Your task to perform on an android device: Search for pizza restaurants on Maps Image 0: 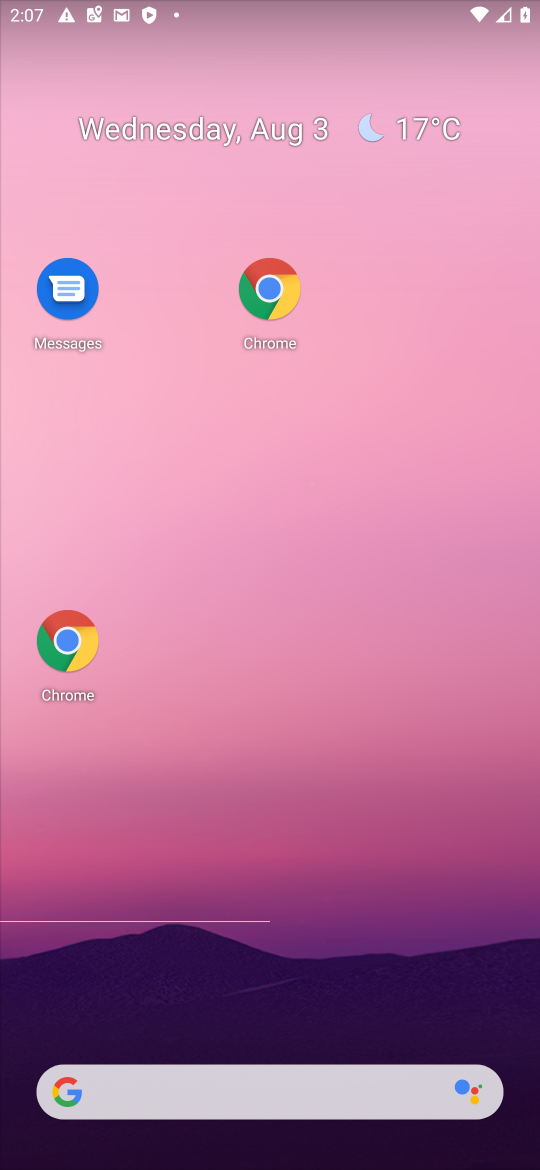
Step 0: drag from (344, 923) to (370, 177)
Your task to perform on an android device: Search for pizza restaurants on Maps Image 1: 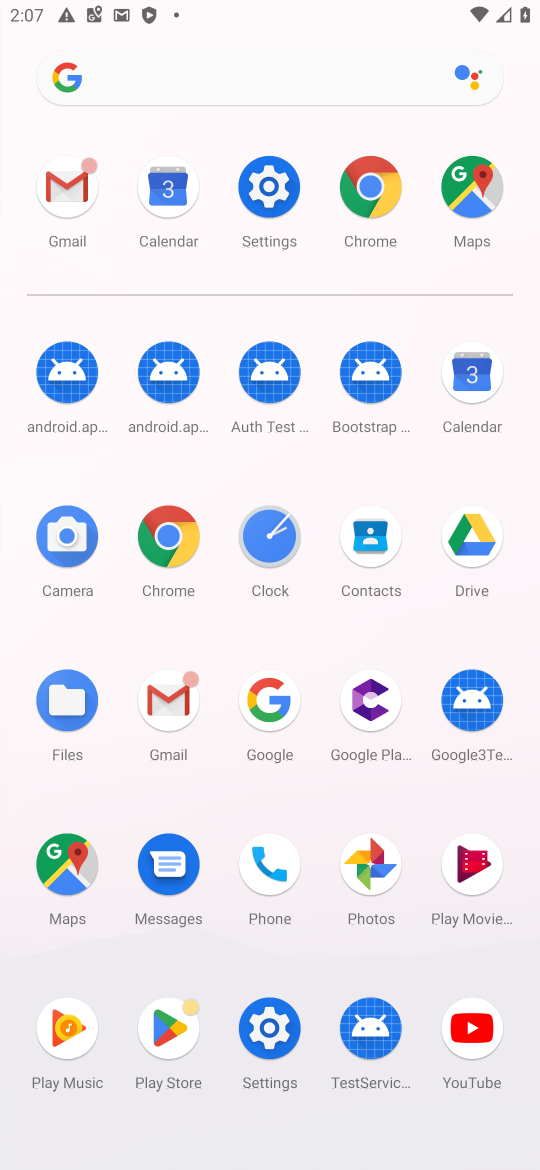
Step 1: click (86, 886)
Your task to perform on an android device: Search for pizza restaurants on Maps Image 2: 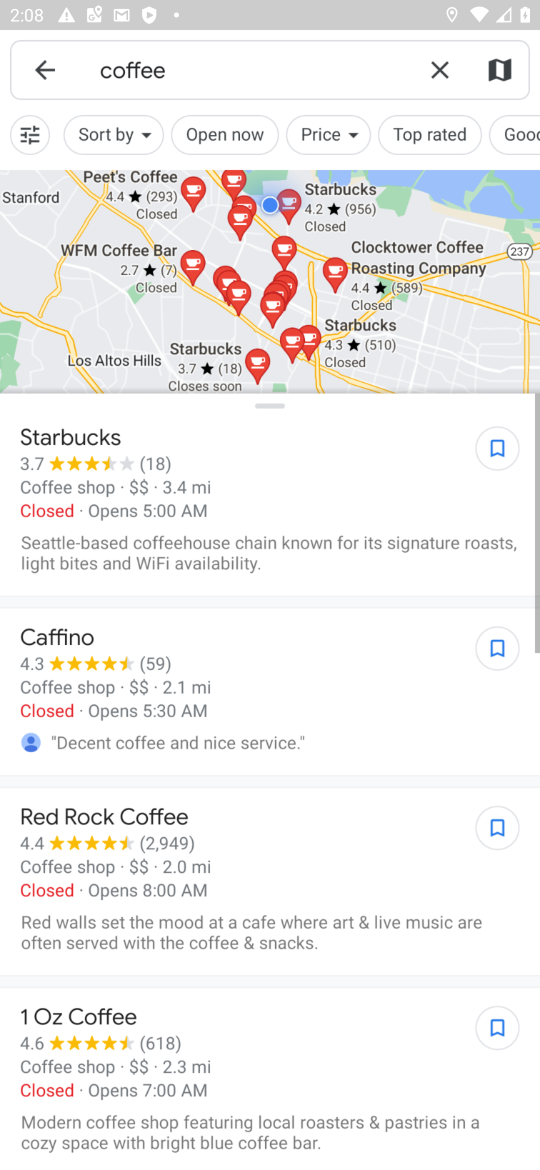
Step 2: click (86, 886)
Your task to perform on an android device: Search for pizza restaurants on Maps Image 3: 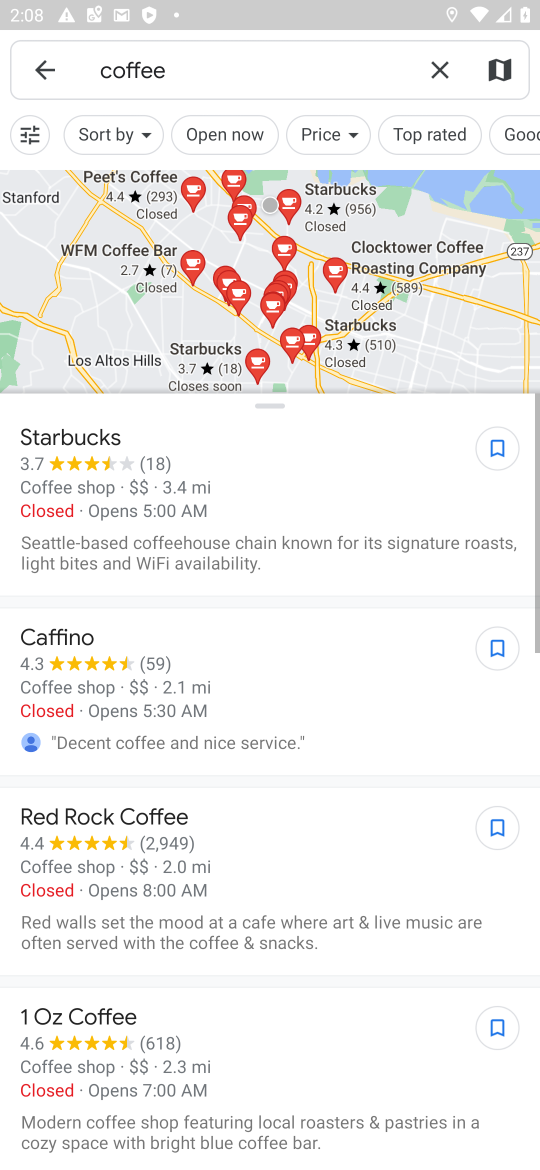
Step 3: click (86, 886)
Your task to perform on an android device: Search for pizza restaurants on Maps Image 4: 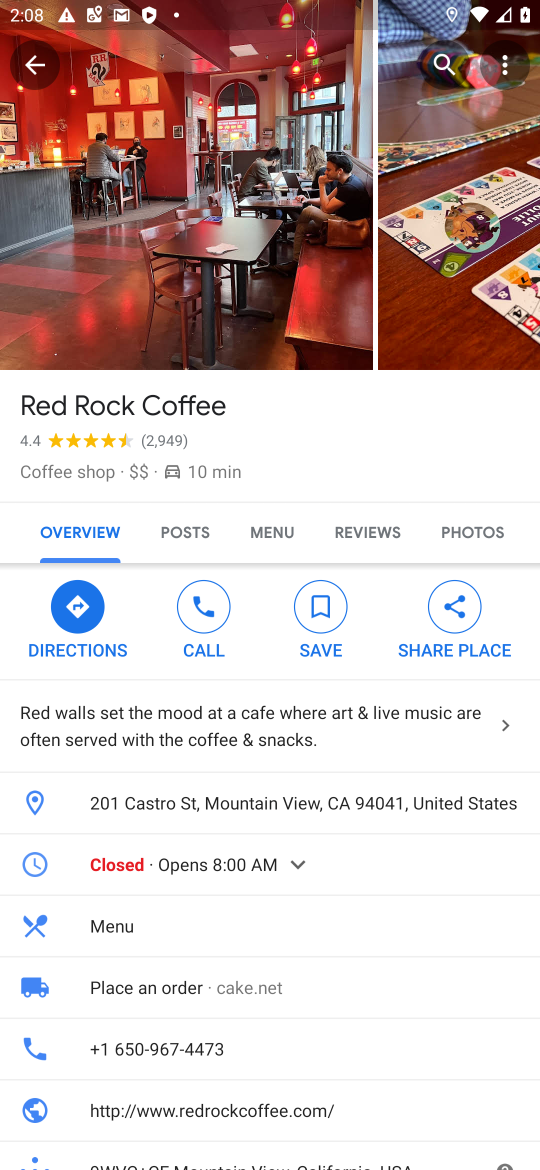
Step 4: task complete